Your task to perform on an android device: Open Google Chrome Image 0: 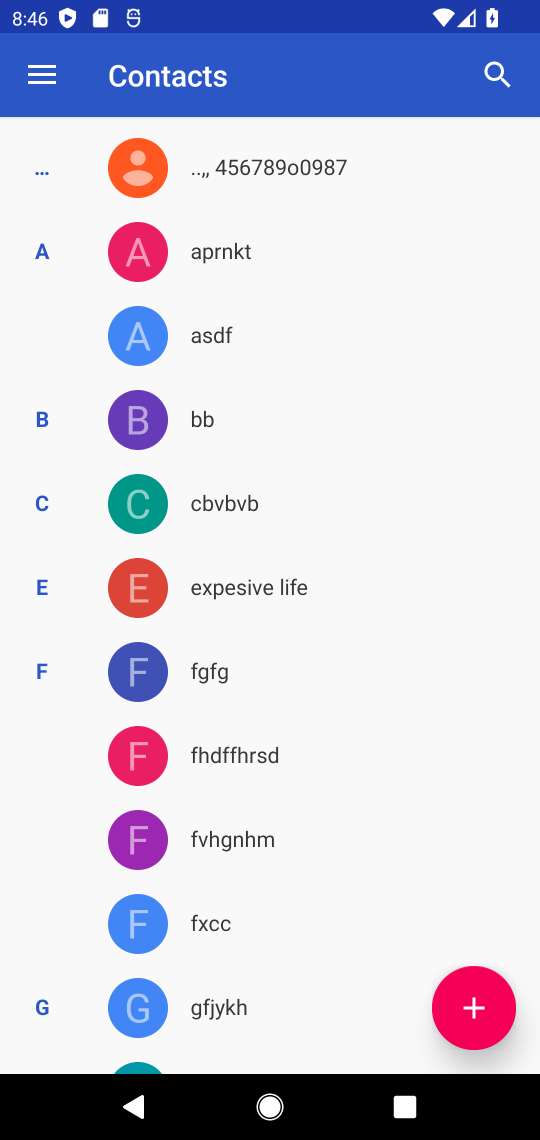
Step 0: press home button
Your task to perform on an android device: Open Google Chrome Image 1: 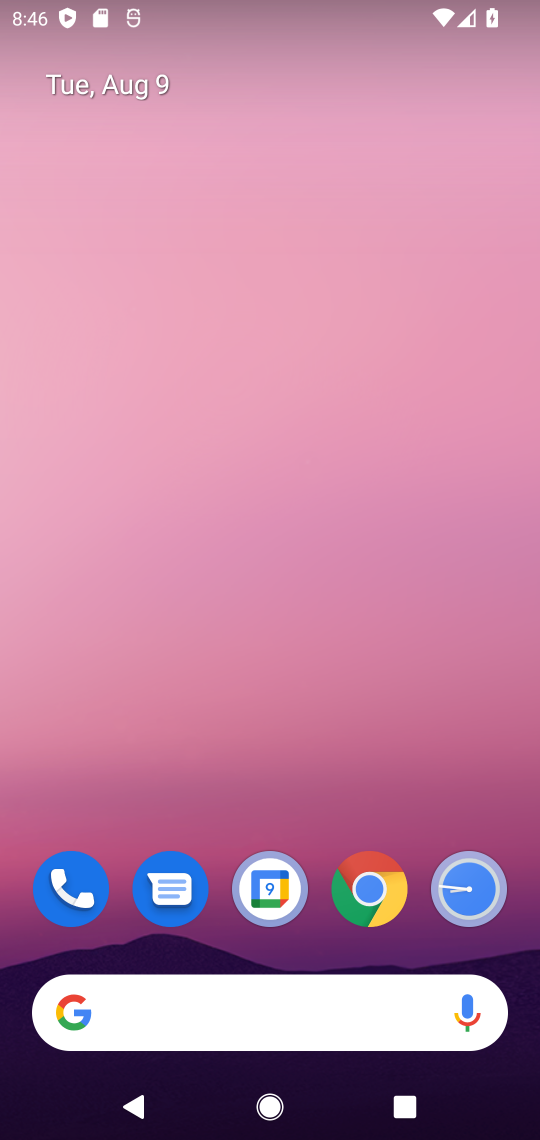
Step 1: drag from (331, 847) to (348, 162)
Your task to perform on an android device: Open Google Chrome Image 2: 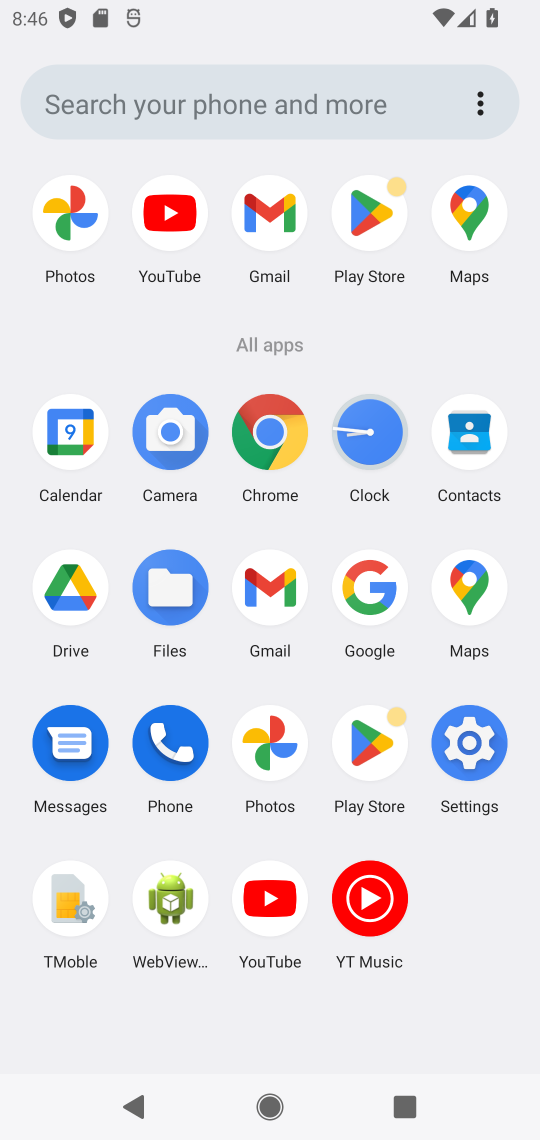
Step 2: click (276, 424)
Your task to perform on an android device: Open Google Chrome Image 3: 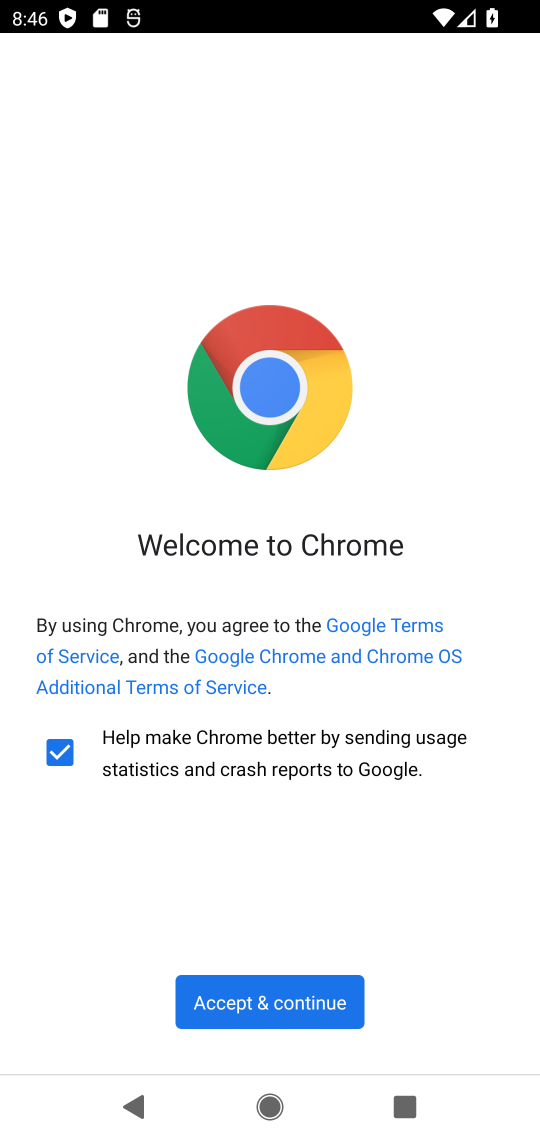
Step 3: click (323, 1006)
Your task to perform on an android device: Open Google Chrome Image 4: 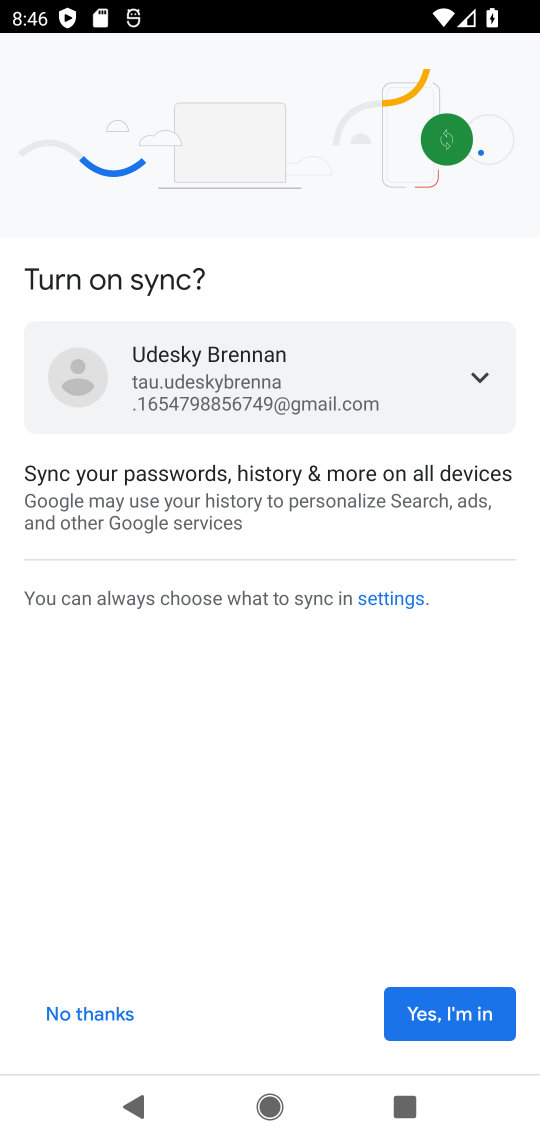
Step 4: click (429, 1017)
Your task to perform on an android device: Open Google Chrome Image 5: 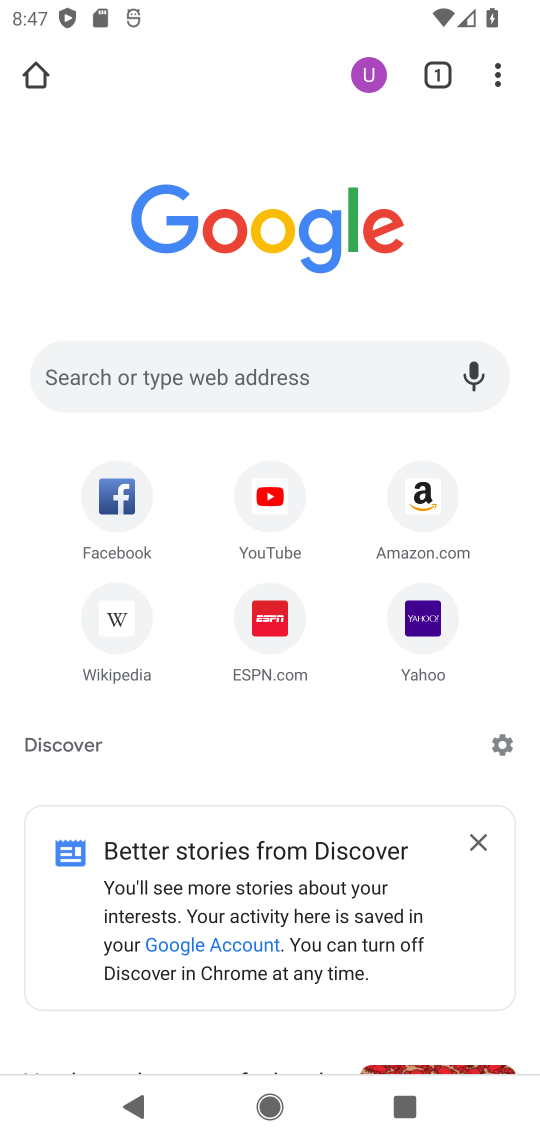
Step 5: task complete